Your task to perform on an android device: turn on translation in the chrome app Image 0: 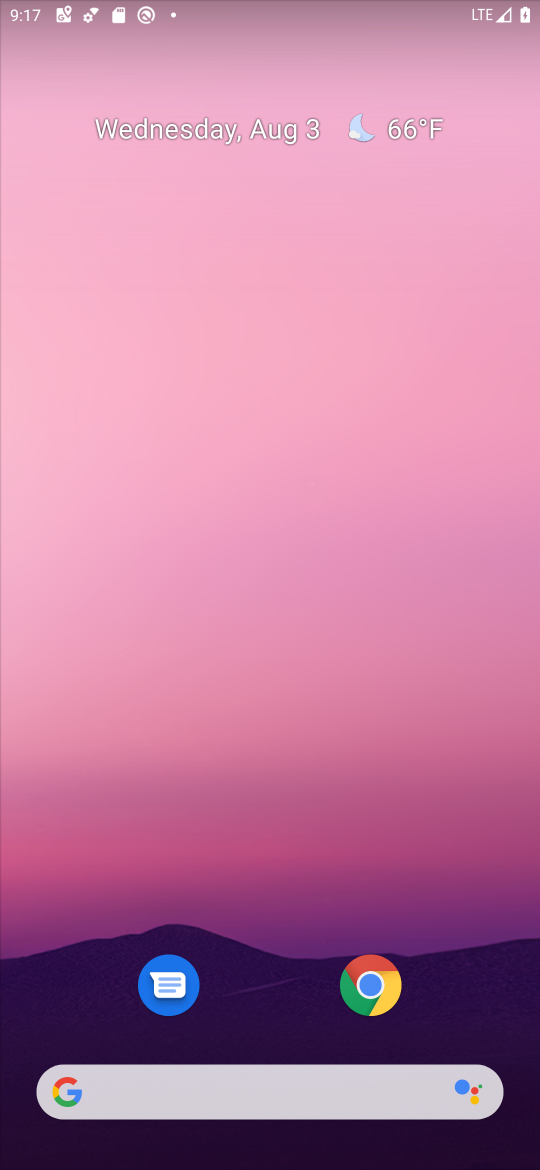
Step 0: click (370, 950)
Your task to perform on an android device: turn on translation in the chrome app Image 1: 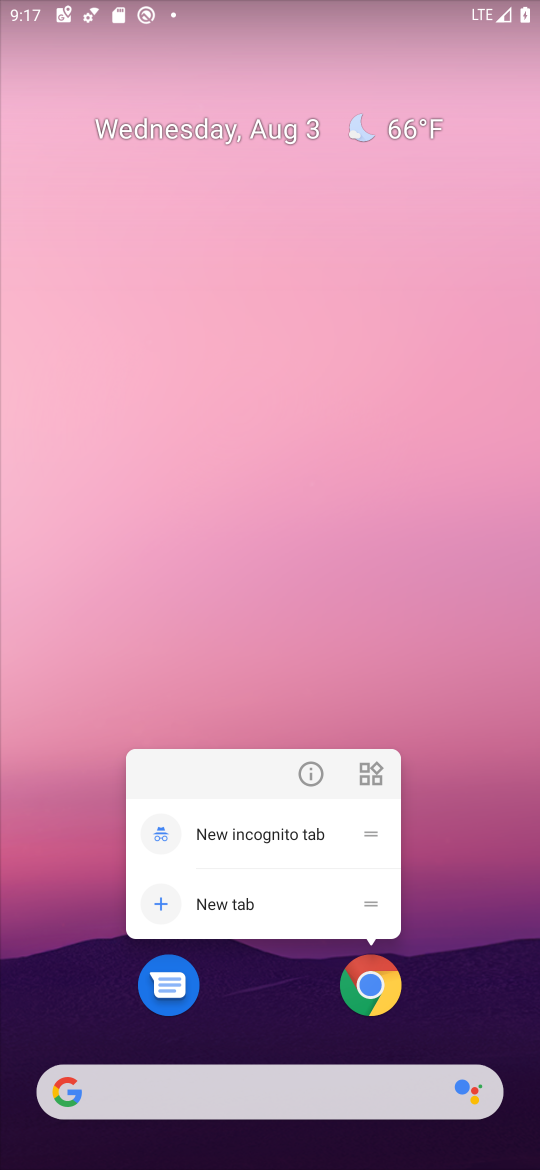
Step 1: click (368, 1005)
Your task to perform on an android device: turn on translation in the chrome app Image 2: 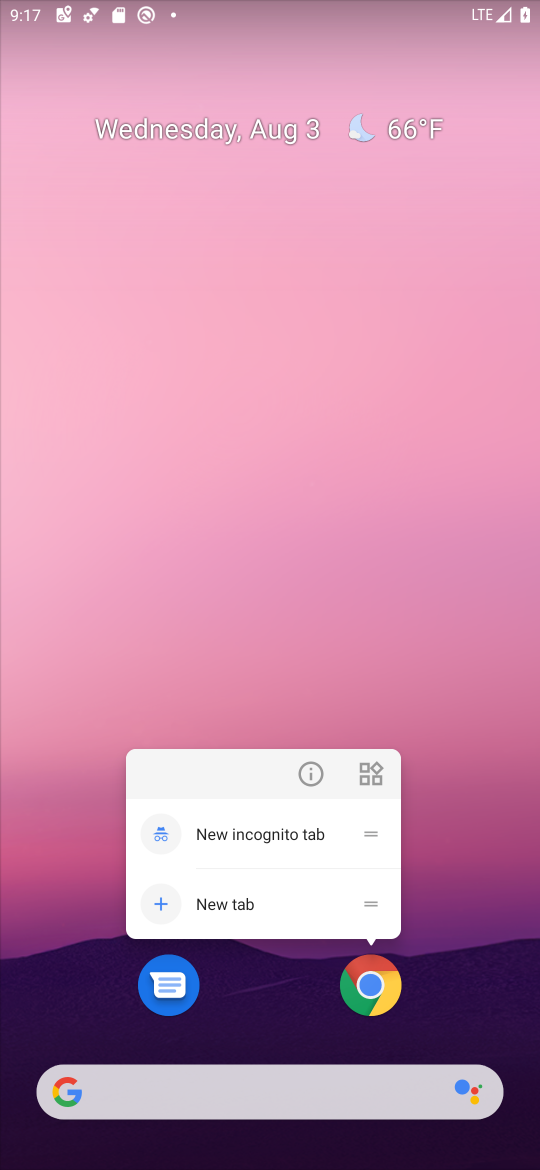
Step 2: click (368, 1005)
Your task to perform on an android device: turn on translation in the chrome app Image 3: 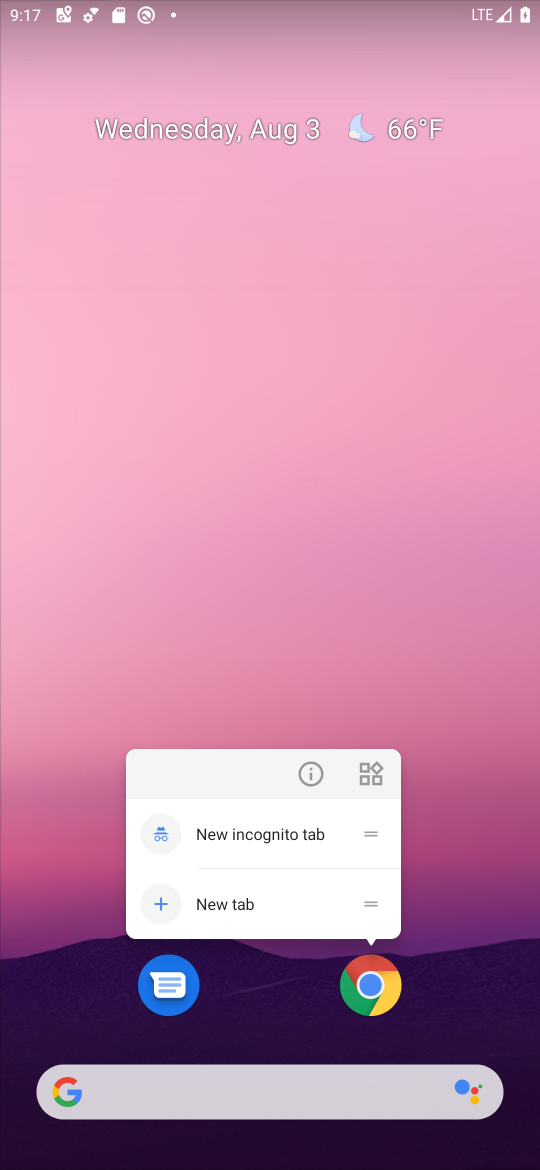
Step 3: click (368, 1005)
Your task to perform on an android device: turn on translation in the chrome app Image 4: 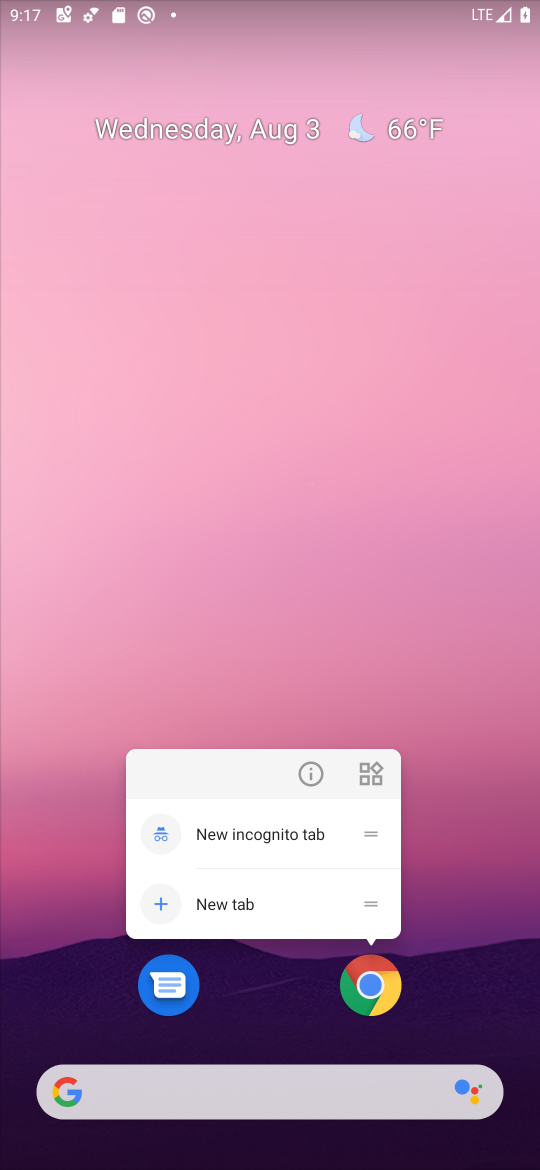
Step 4: click (360, 991)
Your task to perform on an android device: turn on translation in the chrome app Image 5: 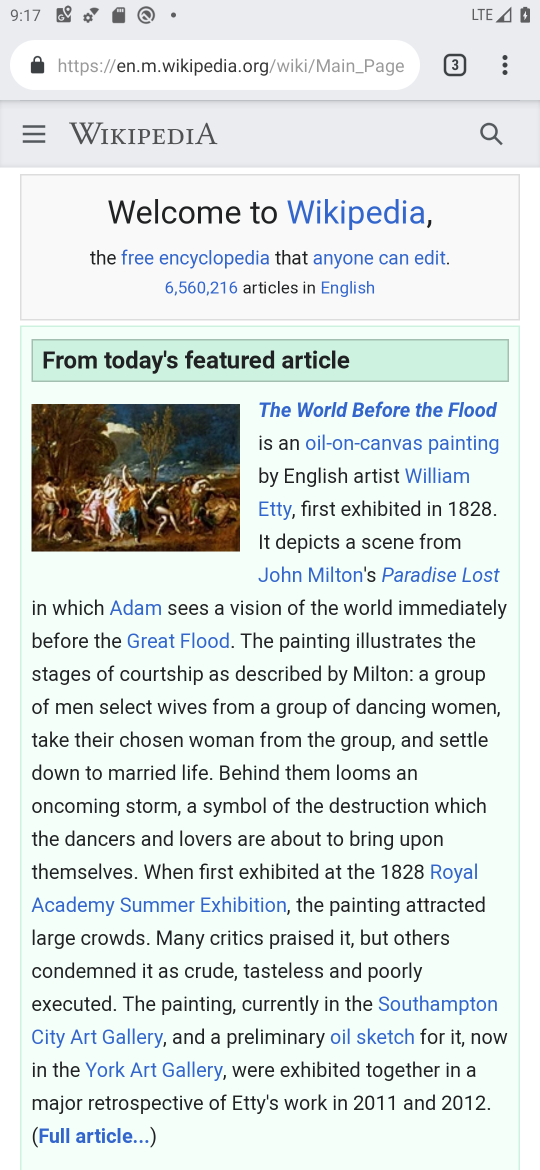
Step 5: drag from (496, 54) to (287, 774)
Your task to perform on an android device: turn on translation in the chrome app Image 6: 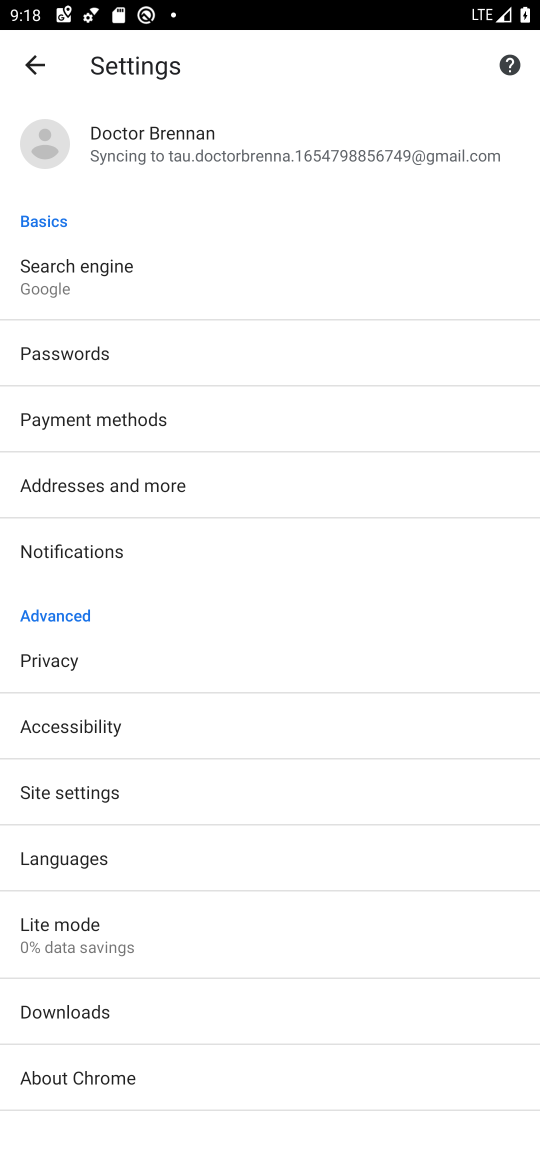
Step 6: click (118, 856)
Your task to perform on an android device: turn on translation in the chrome app Image 7: 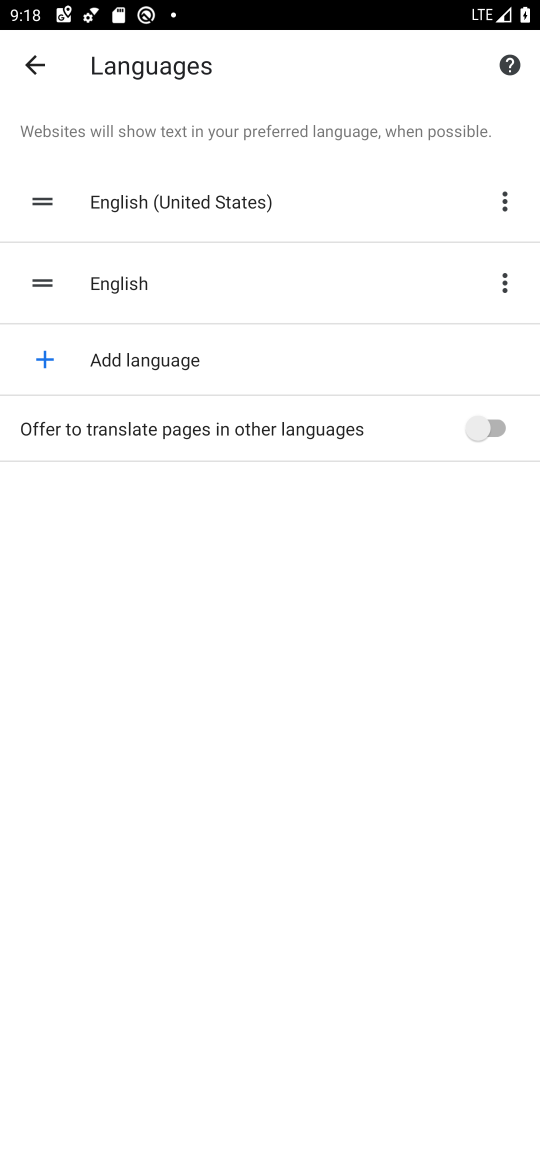
Step 7: click (494, 430)
Your task to perform on an android device: turn on translation in the chrome app Image 8: 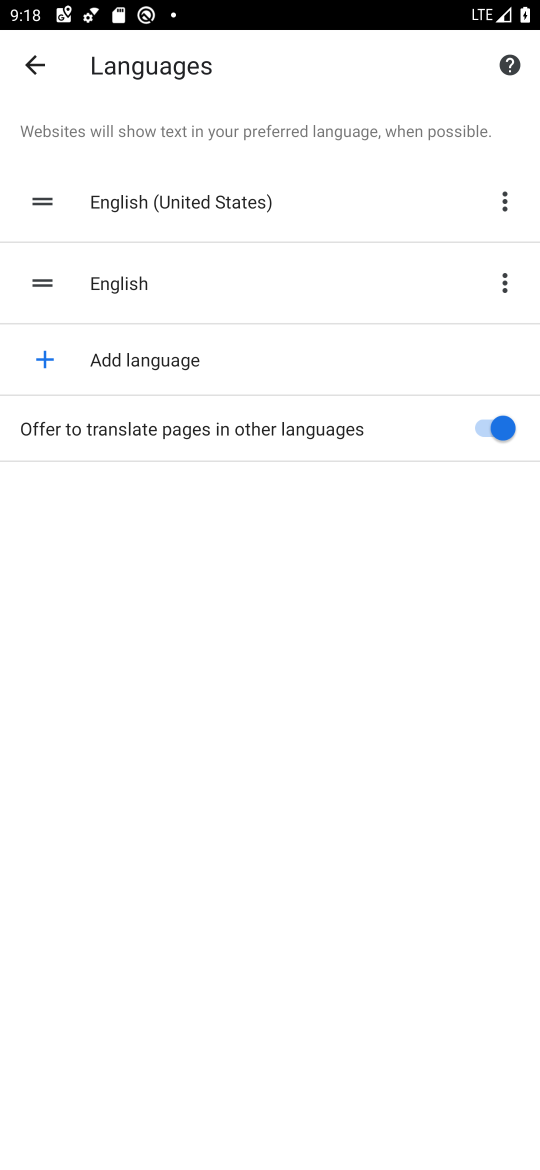
Step 8: task complete